Your task to perform on an android device: Clear all items from cart on costco. Image 0: 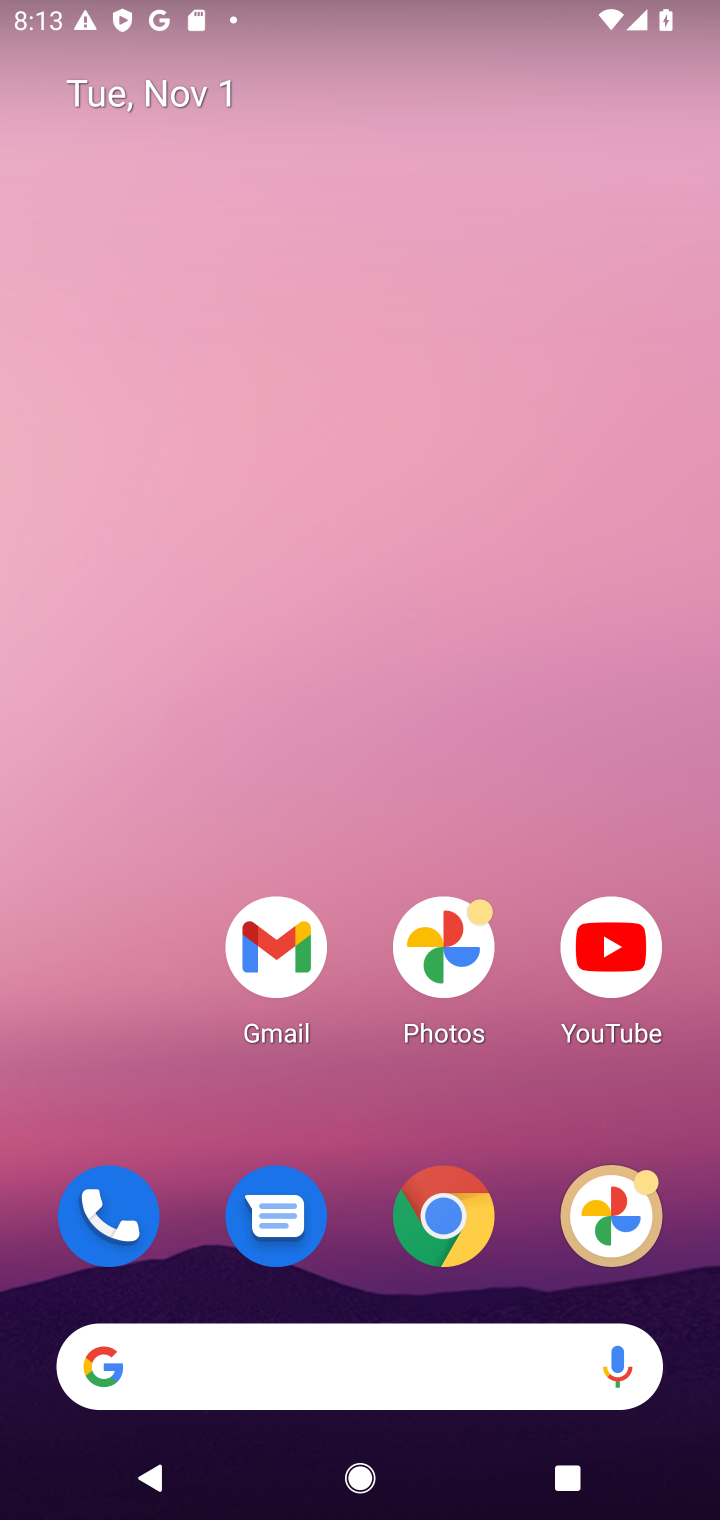
Step 0: click (450, 1241)
Your task to perform on an android device: Clear all items from cart on costco. Image 1: 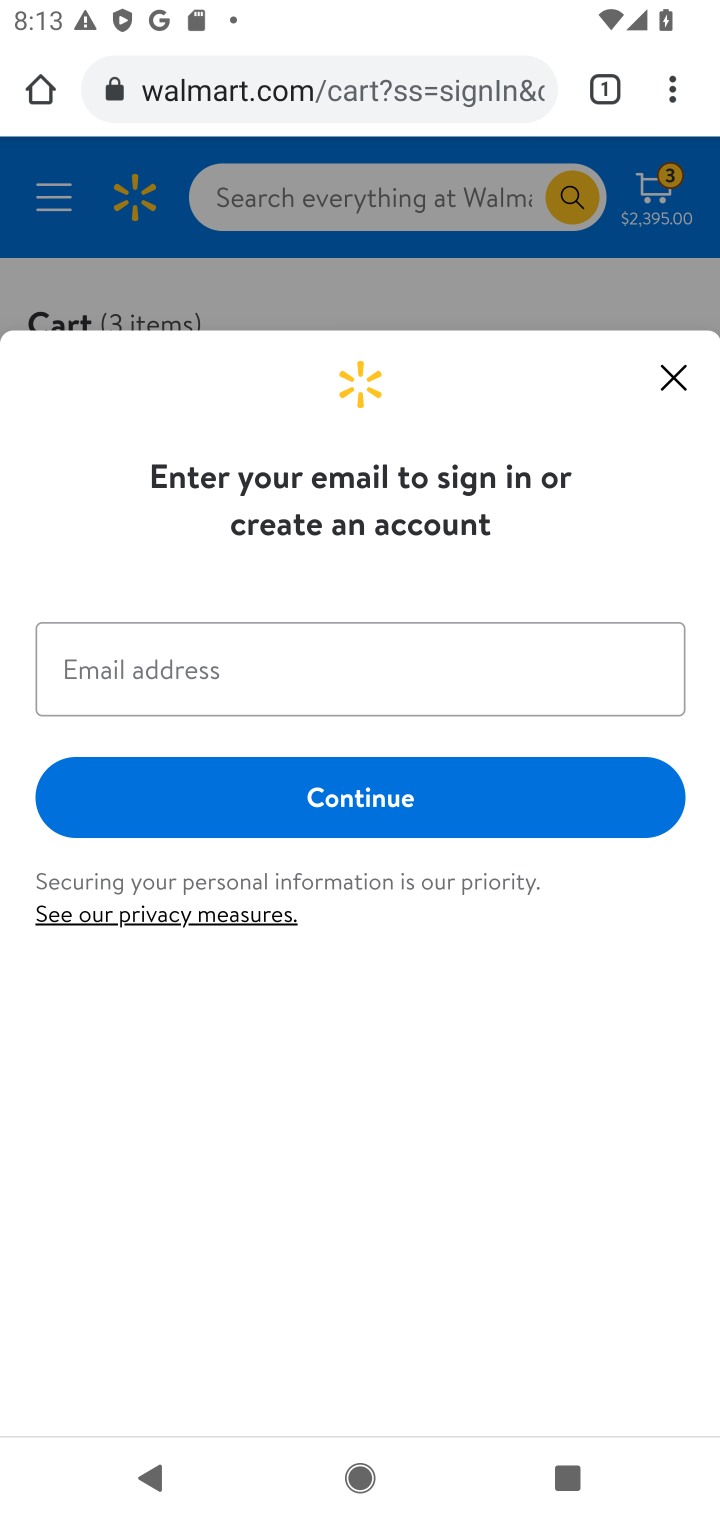
Step 1: click (354, 87)
Your task to perform on an android device: Clear all items from cart on costco. Image 2: 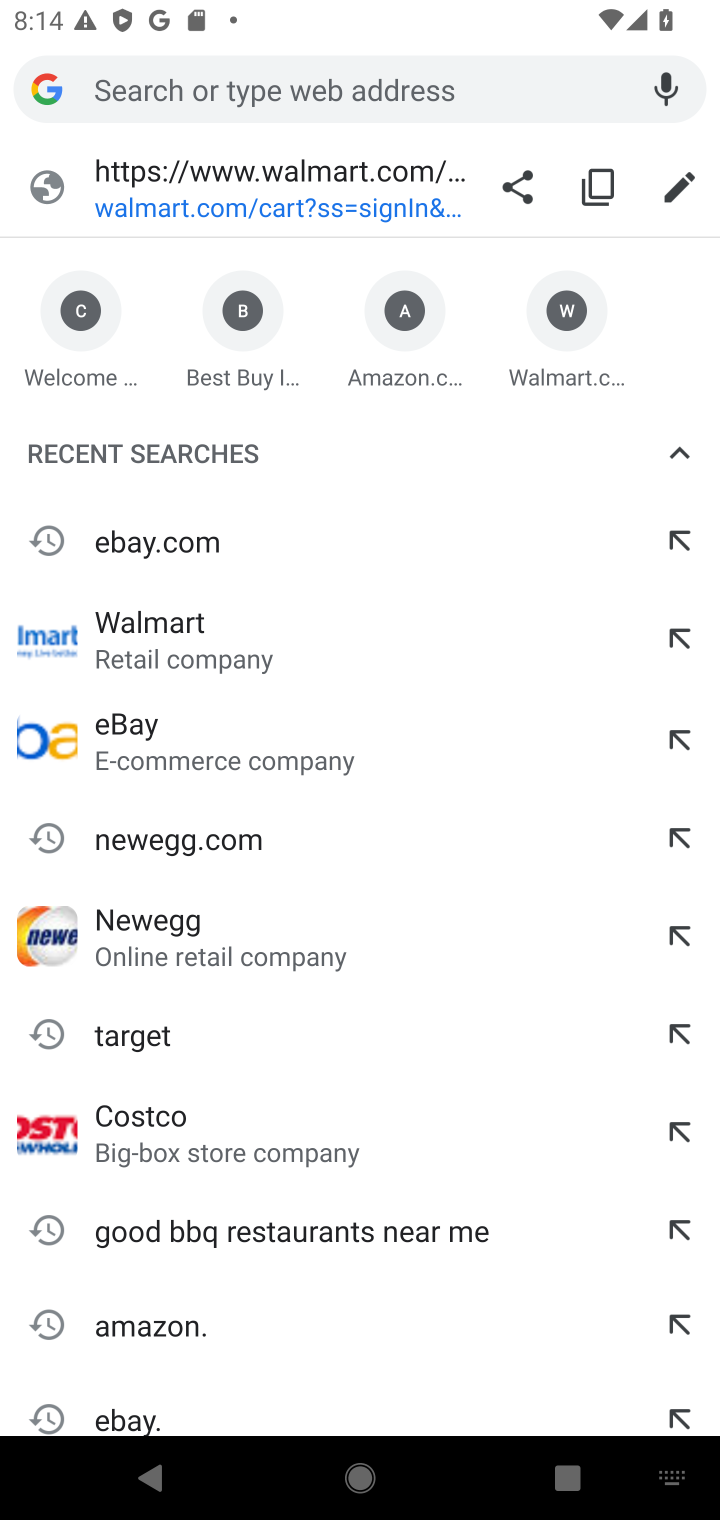
Step 2: type "costco"
Your task to perform on an android device: Clear all items from cart on costco. Image 3: 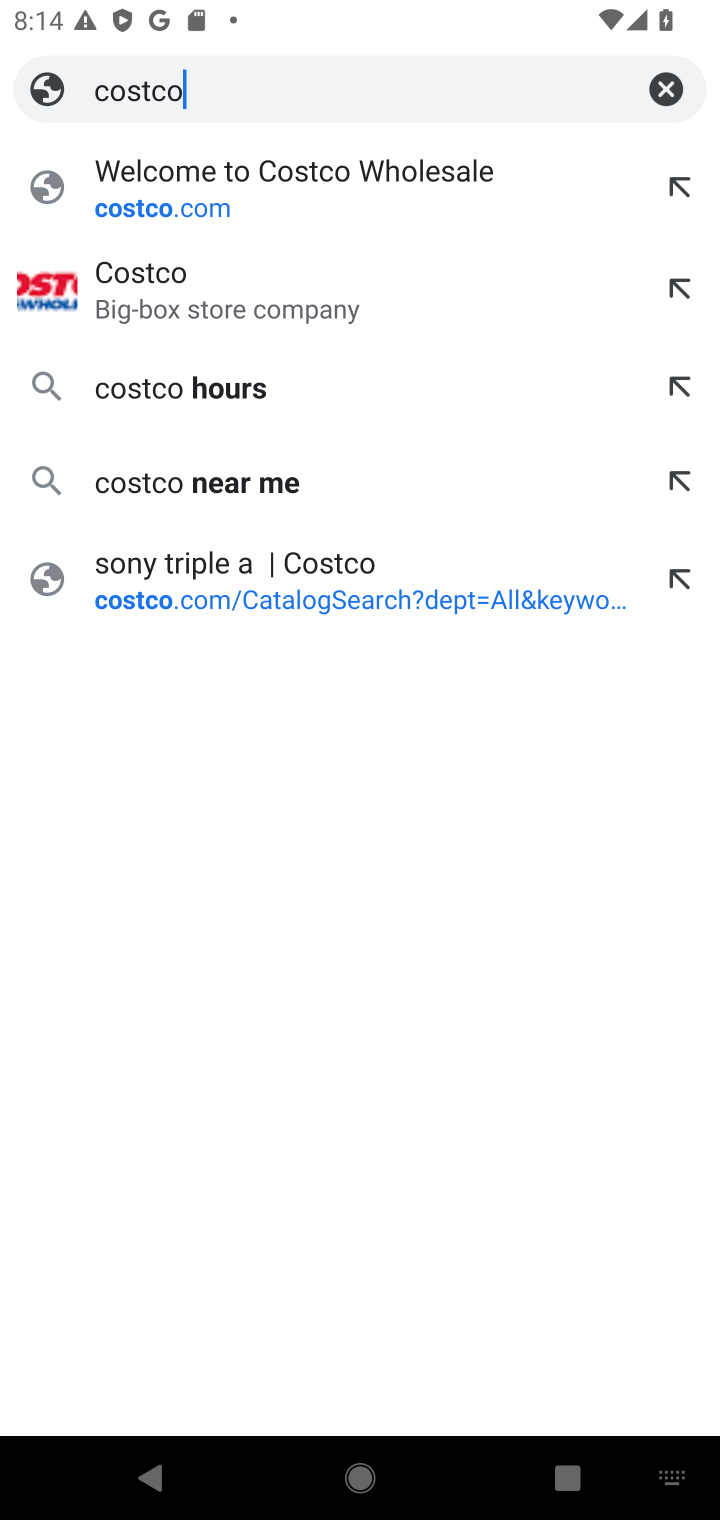
Step 3: click (279, 196)
Your task to perform on an android device: Clear all items from cart on costco. Image 4: 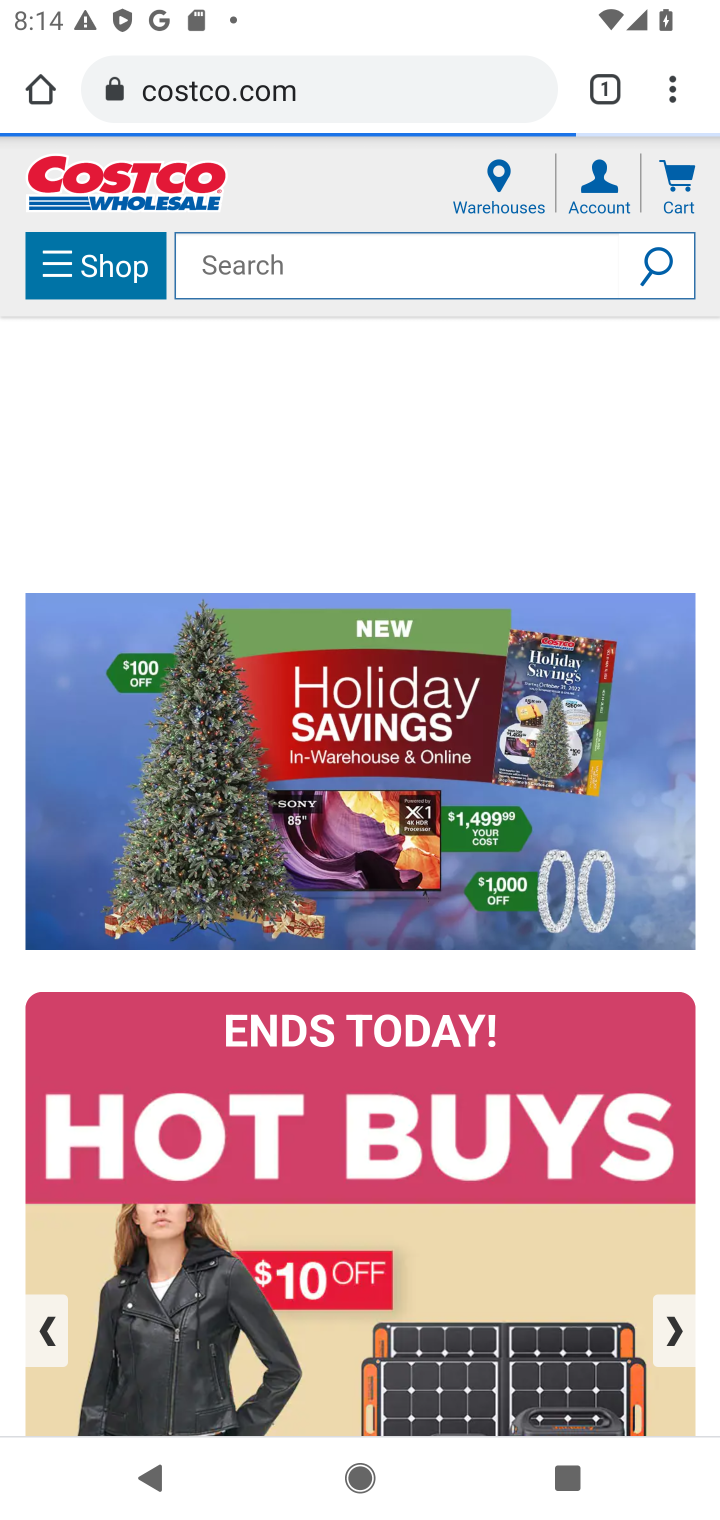
Step 4: click (671, 185)
Your task to perform on an android device: Clear all items from cart on costco. Image 5: 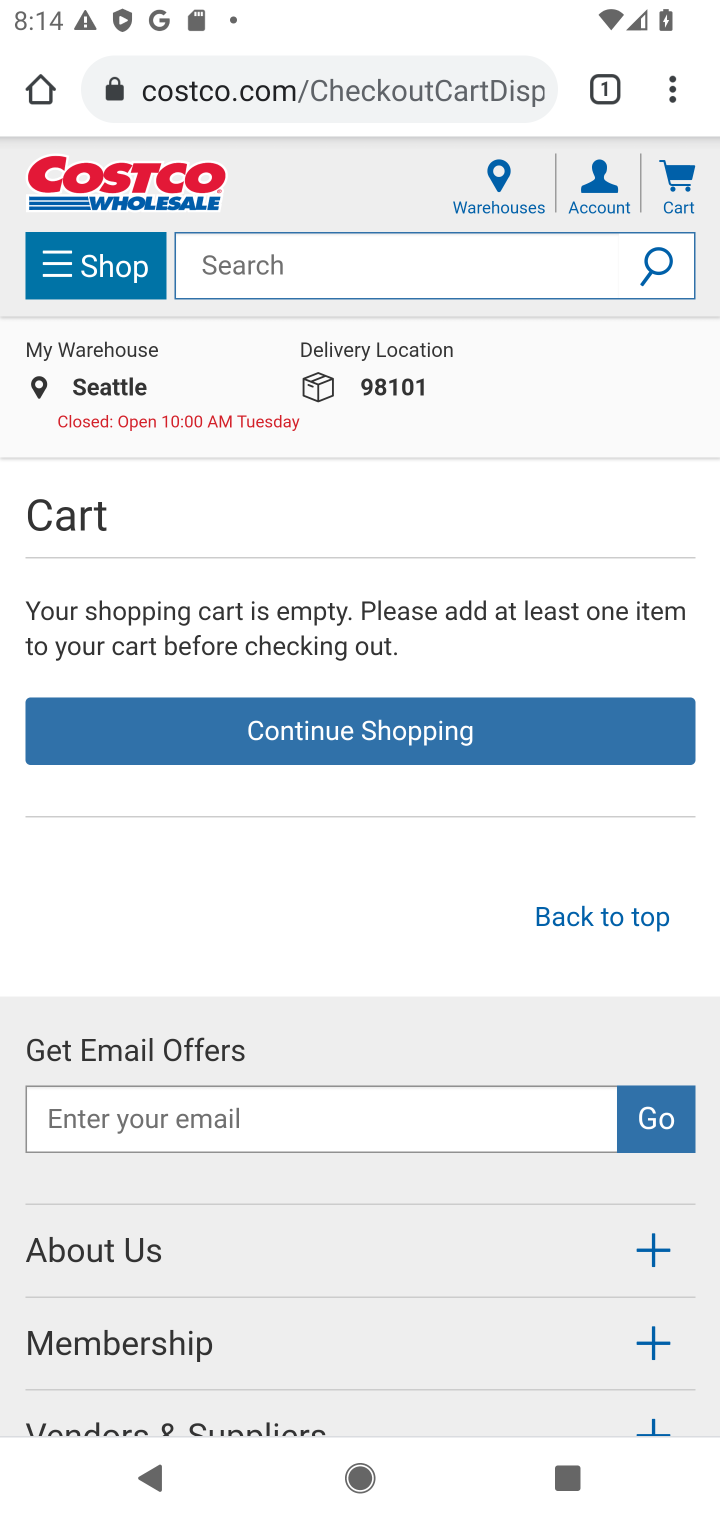
Step 5: task complete